Your task to perform on an android device: turn smart compose on in the gmail app Image 0: 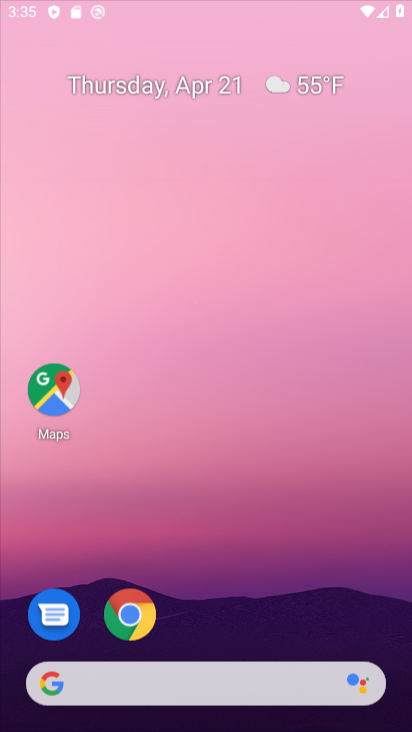
Step 0: drag from (162, 37) to (343, 54)
Your task to perform on an android device: turn smart compose on in the gmail app Image 1: 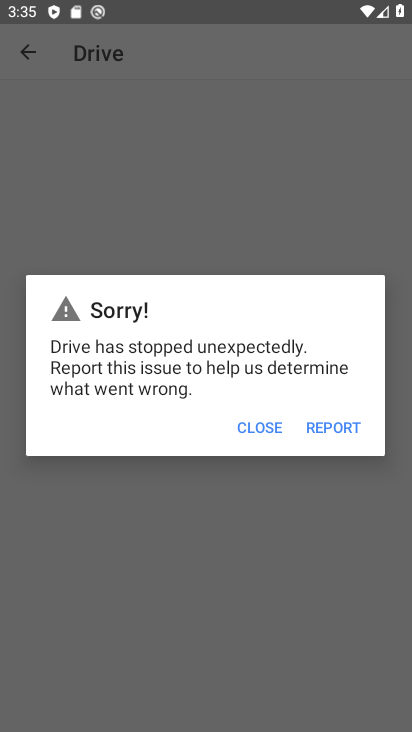
Step 1: press home button
Your task to perform on an android device: turn smart compose on in the gmail app Image 2: 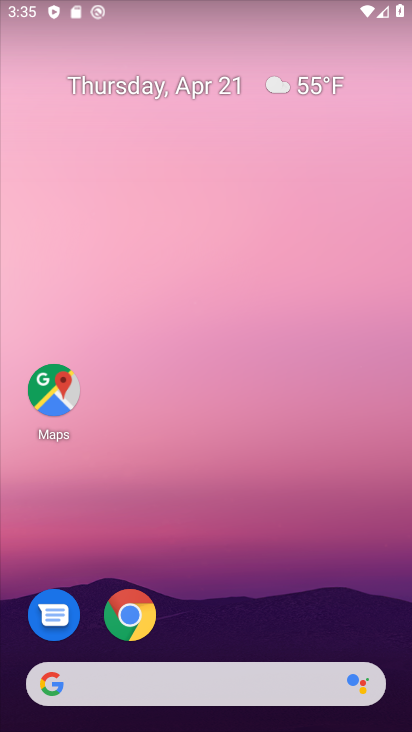
Step 2: drag from (285, 539) to (234, 24)
Your task to perform on an android device: turn smart compose on in the gmail app Image 3: 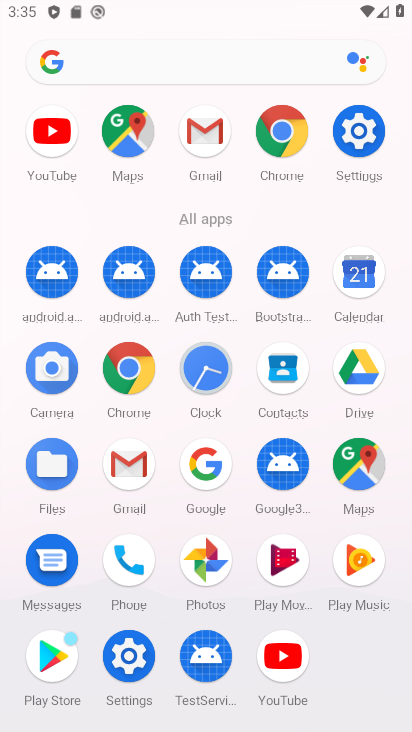
Step 3: drag from (2, 366) to (7, 187)
Your task to perform on an android device: turn smart compose on in the gmail app Image 4: 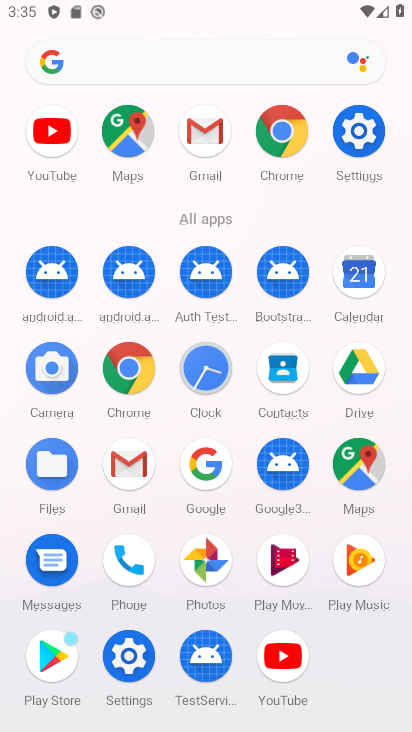
Step 4: click (207, 119)
Your task to perform on an android device: turn smart compose on in the gmail app Image 5: 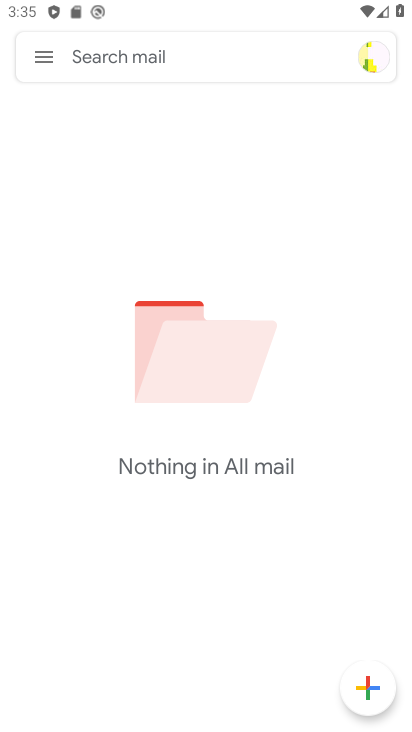
Step 5: click (52, 48)
Your task to perform on an android device: turn smart compose on in the gmail app Image 6: 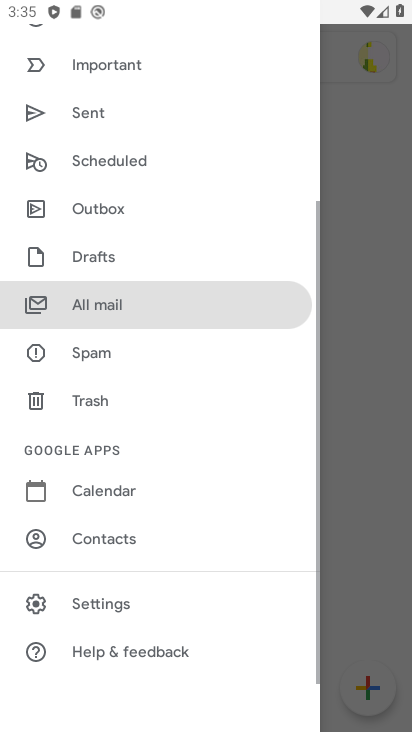
Step 6: drag from (169, 507) to (199, 135)
Your task to perform on an android device: turn smart compose on in the gmail app Image 7: 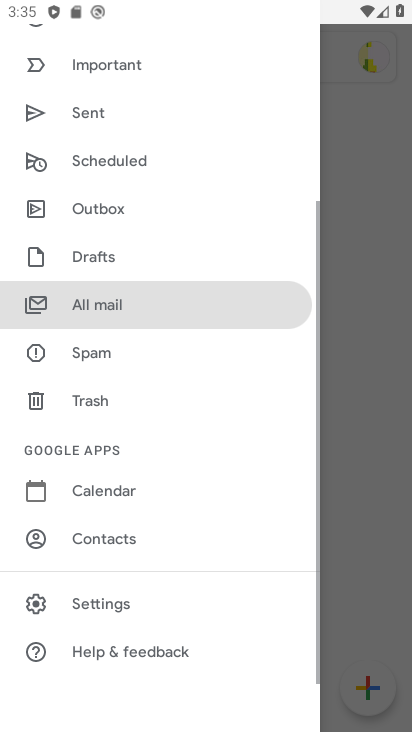
Step 7: click (92, 600)
Your task to perform on an android device: turn smart compose on in the gmail app Image 8: 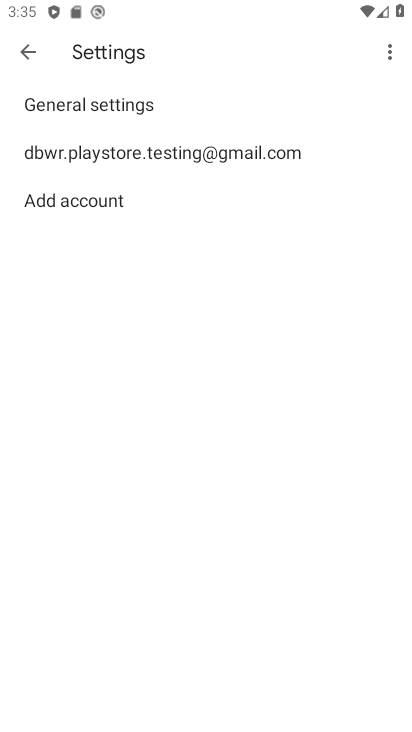
Step 8: click (147, 154)
Your task to perform on an android device: turn smart compose on in the gmail app Image 9: 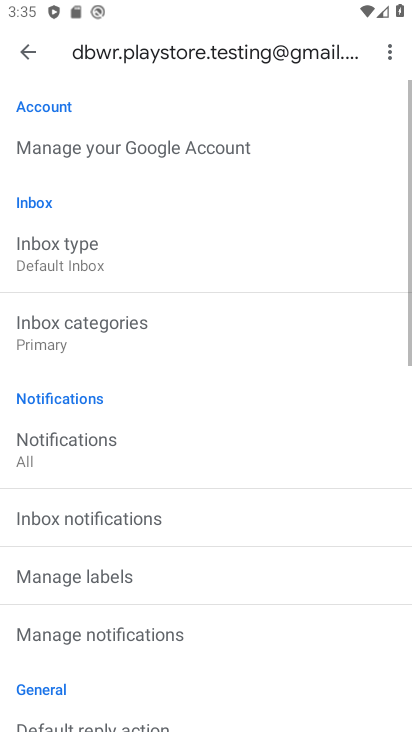
Step 9: task complete